Your task to perform on an android device: turn on notifications settings in the gmail app Image 0: 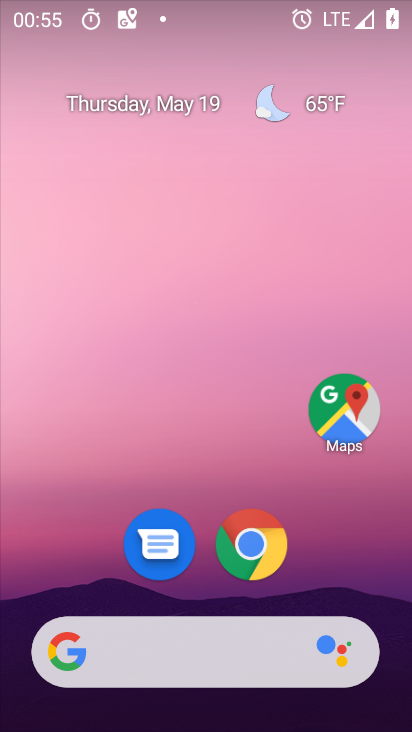
Step 0: drag from (357, 582) to (356, 91)
Your task to perform on an android device: turn on notifications settings in the gmail app Image 1: 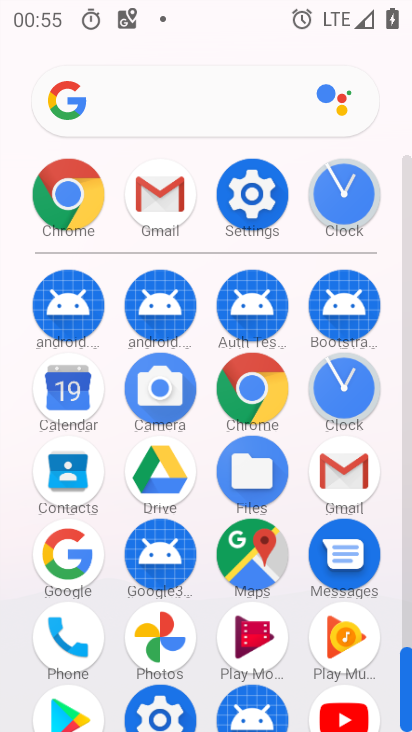
Step 1: click (342, 485)
Your task to perform on an android device: turn on notifications settings in the gmail app Image 2: 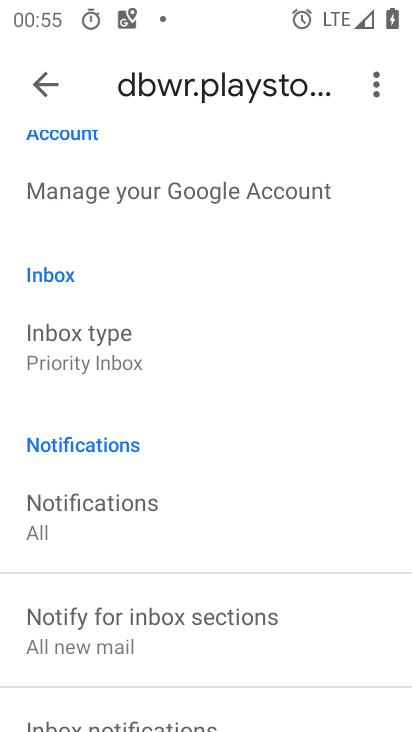
Step 2: drag from (291, 552) to (289, 397)
Your task to perform on an android device: turn on notifications settings in the gmail app Image 3: 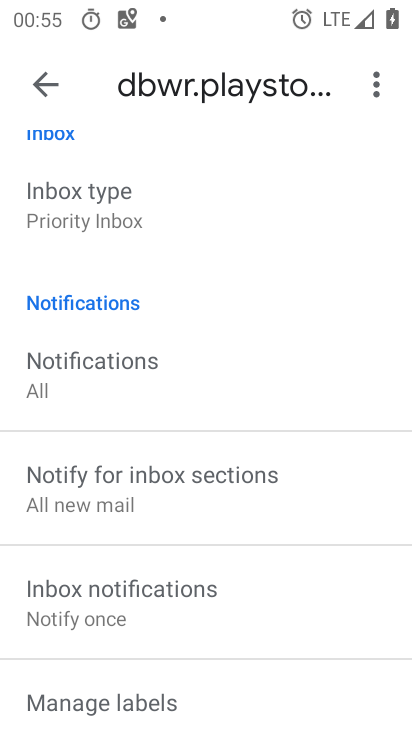
Step 3: drag from (292, 592) to (302, 331)
Your task to perform on an android device: turn on notifications settings in the gmail app Image 4: 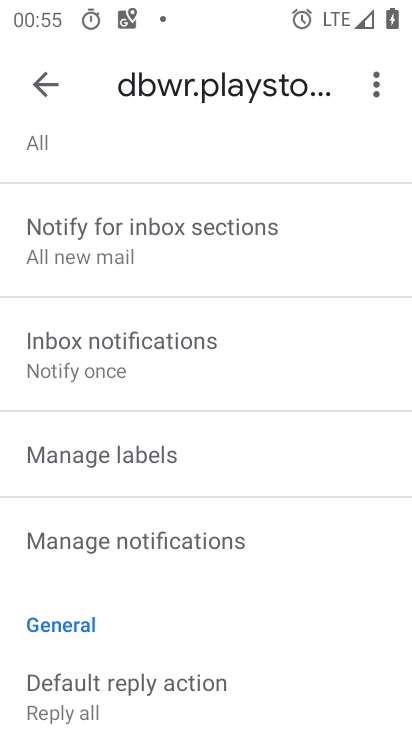
Step 4: drag from (292, 613) to (307, 407)
Your task to perform on an android device: turn on notifications settings in the gmail app Image 5: 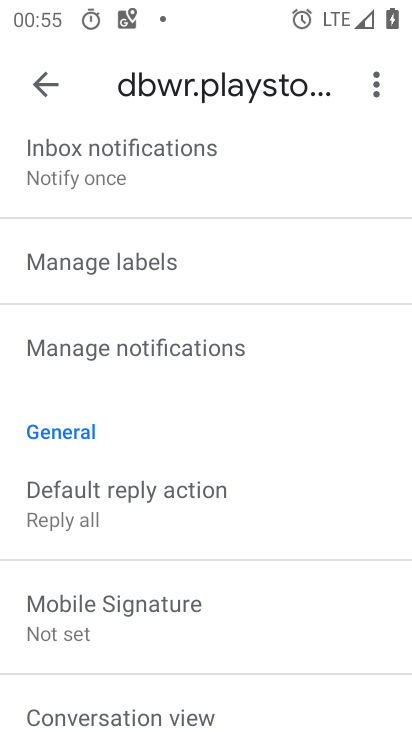
Step 5: drag from (325, 618) to (310, 377)
Your task to perform on an android device: turn on notifications settings in the gmail app Image 6: 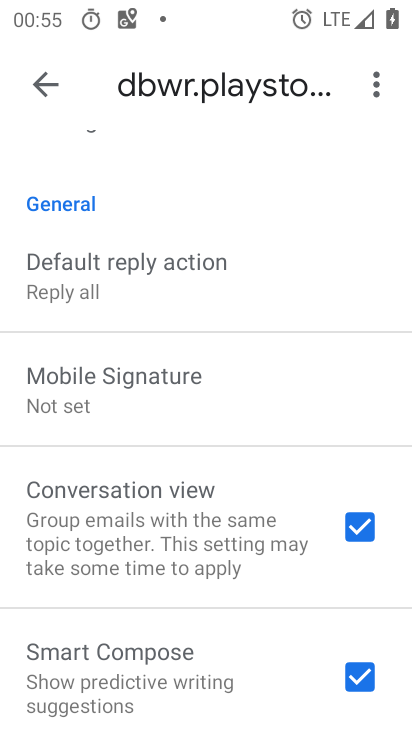
Step 6: drag from (289, 622) to (271, 421)
Your task to perform on an android device: turn on notifications settings in the gmail app Image 7: 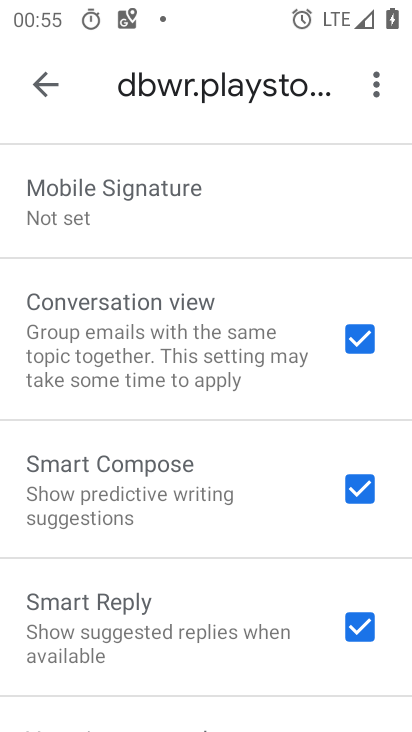
Step 7: drag from (277, 276) to (276, 500)
Your task to perform on an android device: turn on notifications settings in the gmail app Image 8: 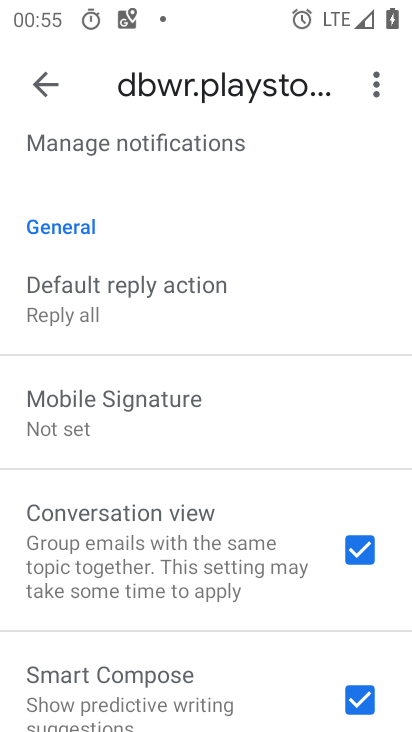
Step 8: drag from (278, 277) to (240, 496)
Your task to perform on an android device: turn on notifications settings in the gmail app Image 9: 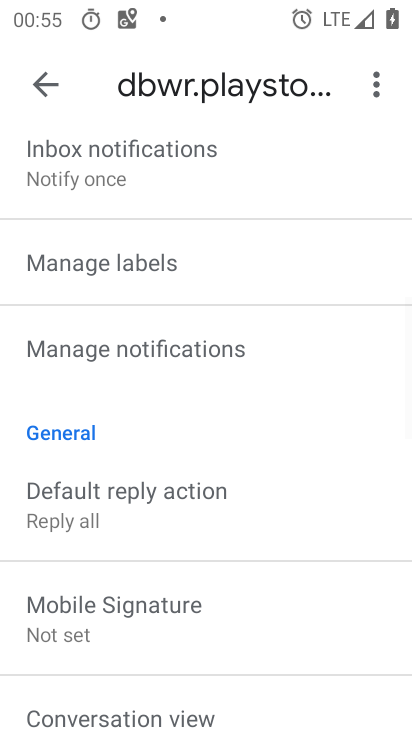
Step 9: drag from (275, 266) to (264, 456)
Your task to perform on an android device: turn on notifications settings in the gmail app Image 10: 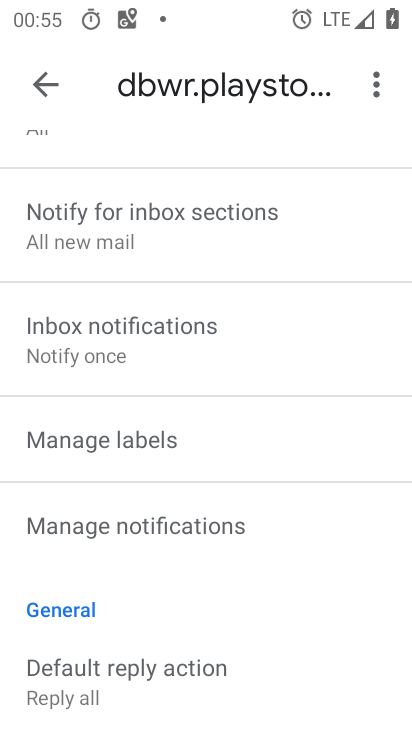
Step 10: click (207, 531)
Your task to perform on an android device: turn on notifications settings in the gmail app Image 11: 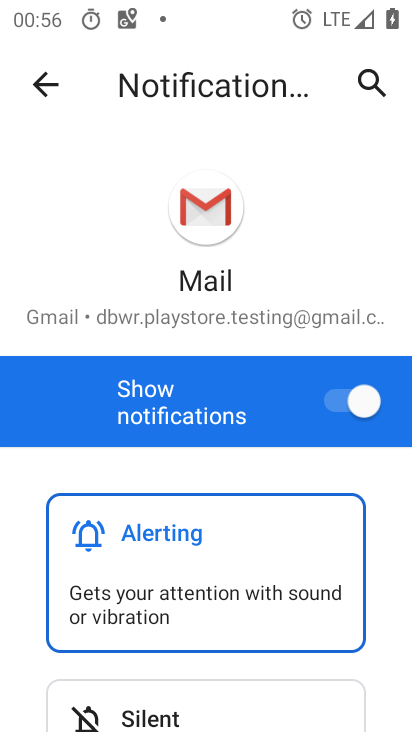
Step 11: task complete